Your task to perform on an android device: change notifications settings Image 0: 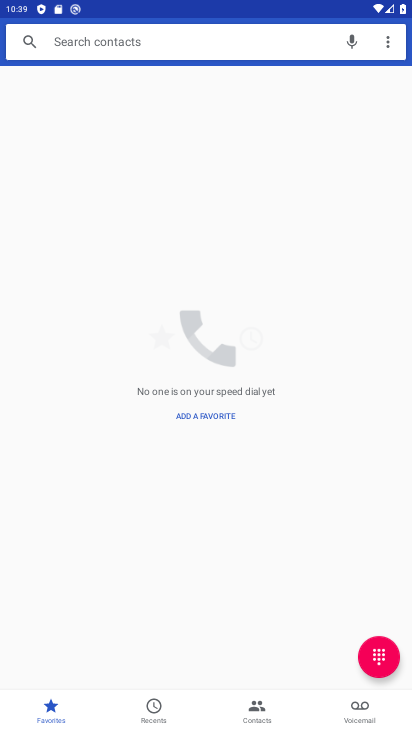
Step 0: press home button
Your task to perform on an android device: change notifications settings Image 1: 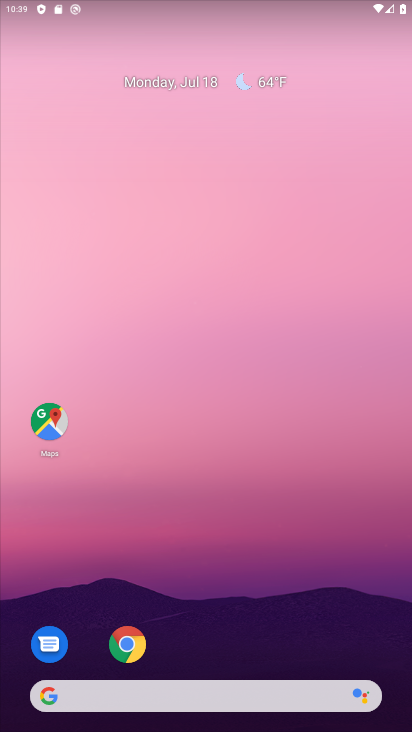
Step 1: drag from (243, 642) to (219, 105)
Your task to perform on an android device: change notifications settings Image 2: 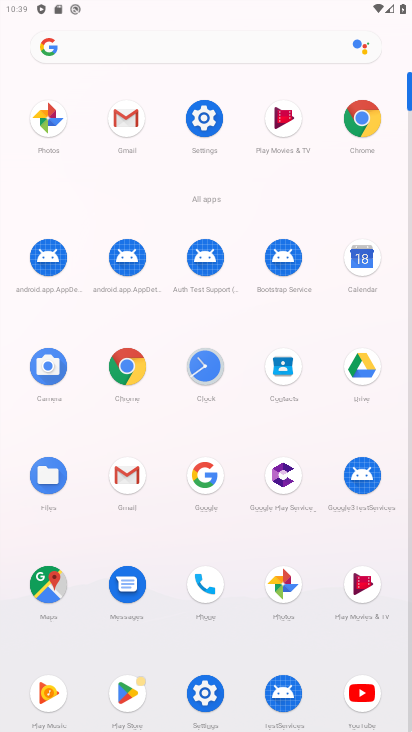
Step 2: click (202, 109)
Your task to perform on an android device: change notifications settings Image 3: 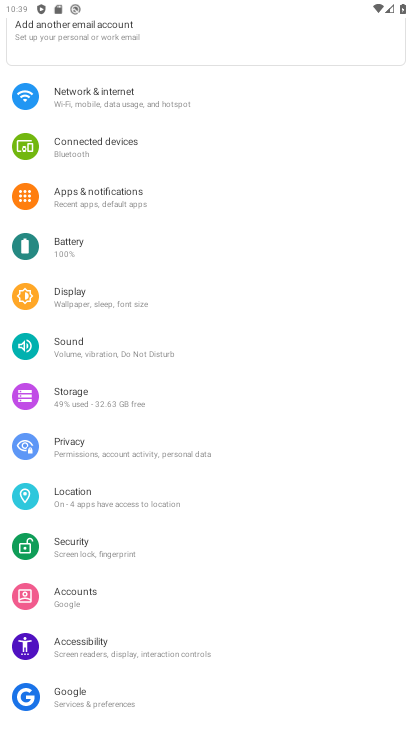
Step 3: click (106, 189)
Your task to perform on an android device: change notifications settings Image 4: 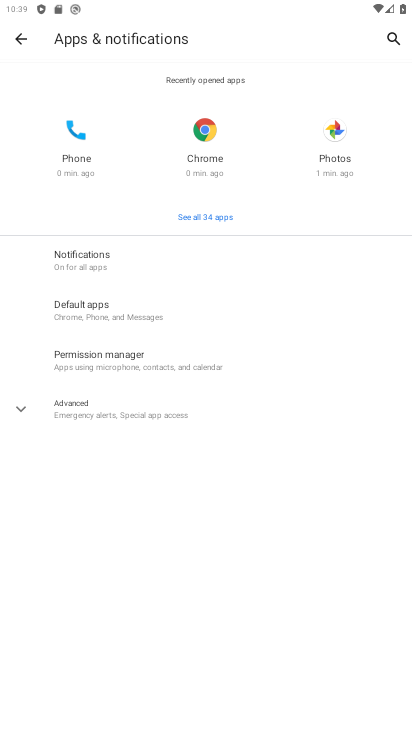
Step 4: click (82, 254)
Your task to perform on an android device: change notifications settings Image 5: 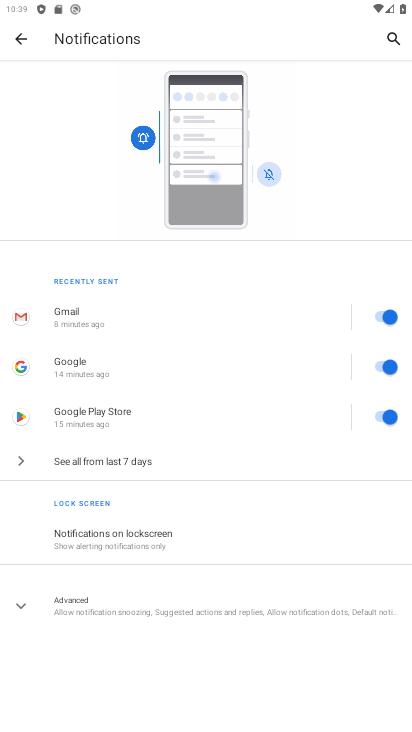
Step 5: click (173, 464)
Your task to perform on an android device: change notifications settings Image 6: 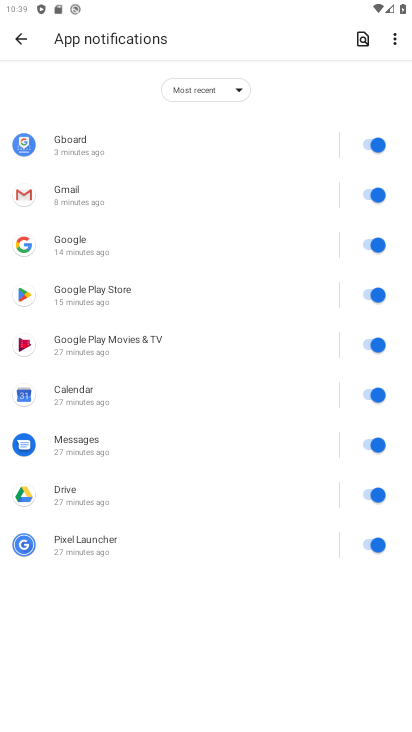
Step 6: click (361, 152)
Your task to perform on an android device: change notifications settings Image 7: 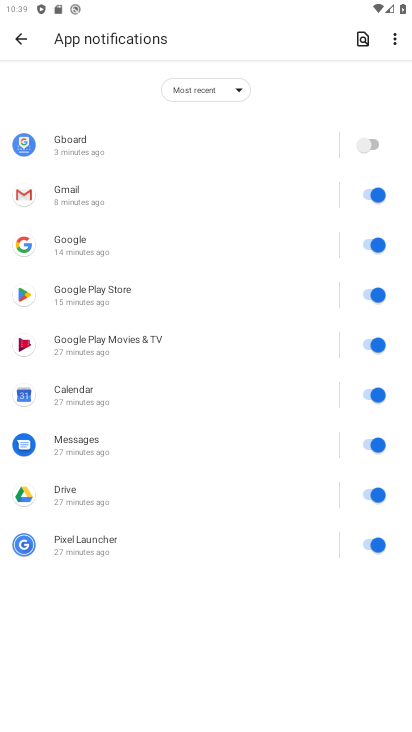
Step 7: click (368, 180)
Your task to perform on an android device: change notifications settings Image 8: 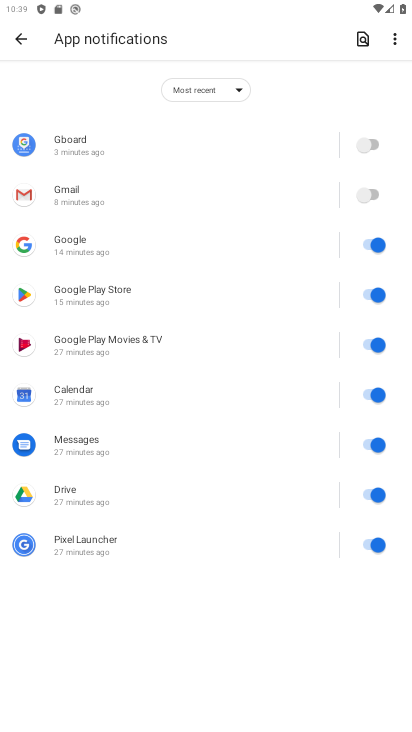
Step 8: click (374, 230)
Your task to perform on an android device: change notifications settings Image 9: 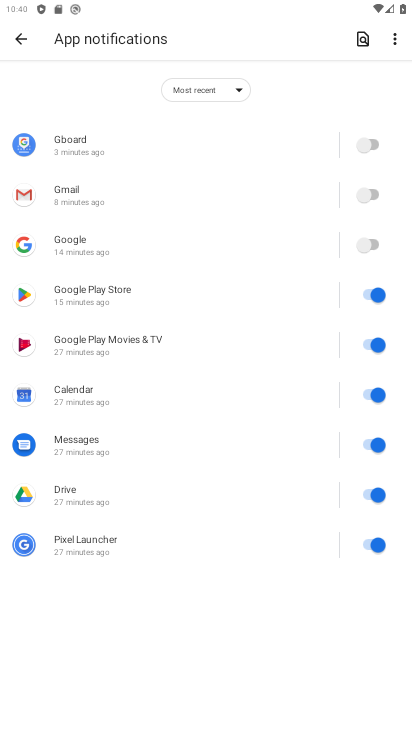
Step 9: click (365, 299)
Your task to perform on an android device: change notifications settings Image 10: 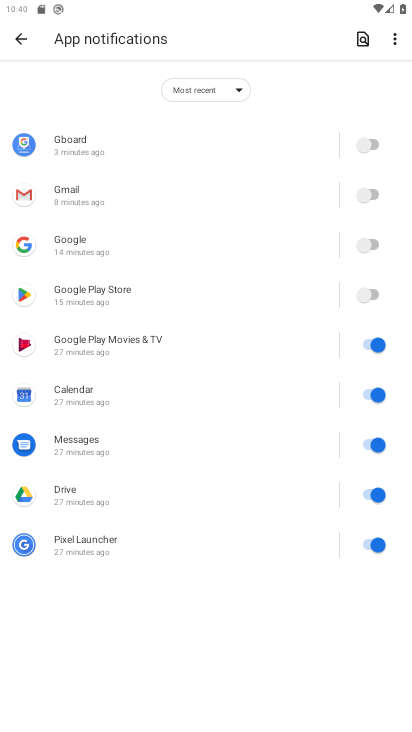
Step 10: click (362, 348)
Your task to perform on an android device: change notifications settings Image 11: 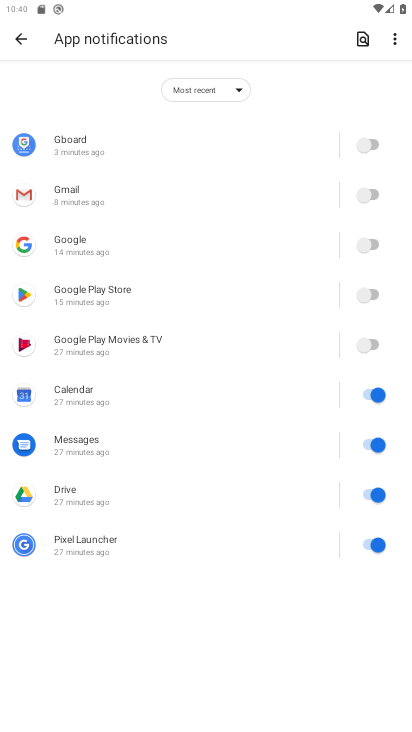
Step 11: click (361, 398)
Your task to perform on an android device: change notifications settings Image 12: 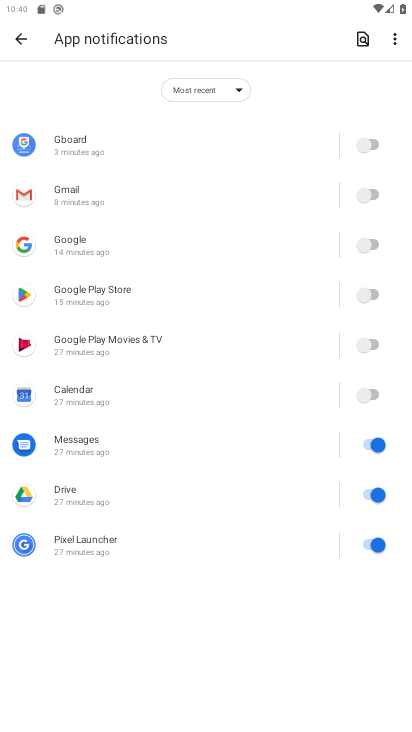
Step 12: click (369, 445)
Your task to perform on an android device: change notifications settings Image 13: 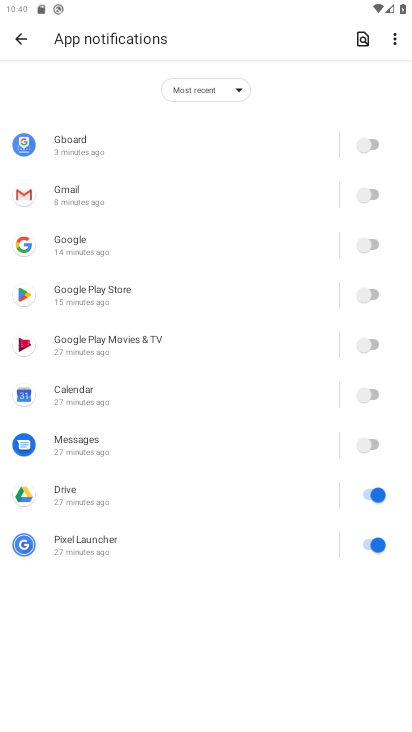
Step 13: click (366, 495)
Your task to perform on an android device: change notifications settings Image 14: 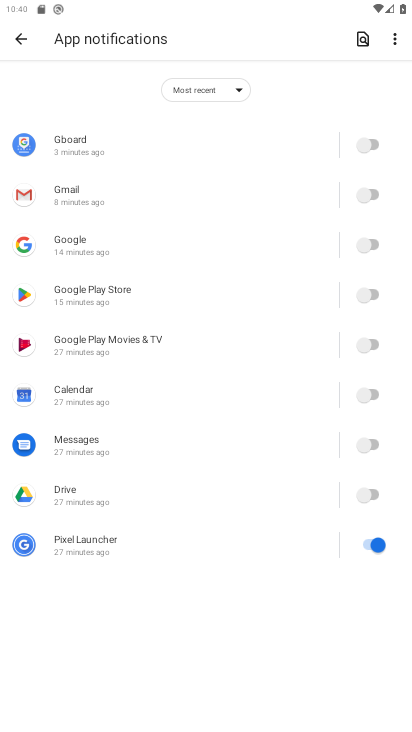
Step 14: click (366, 550)
Your task to perform on an android device: change notifications settings Image 15: 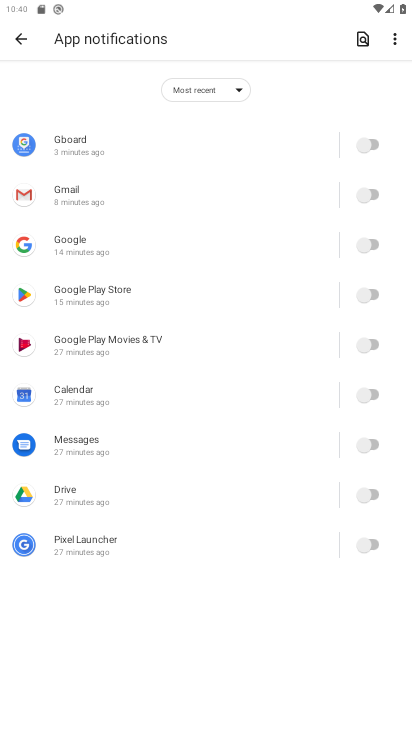
Step 15: click (23, 49)
Your task to perform on an android device: change notifications settings Image 16: 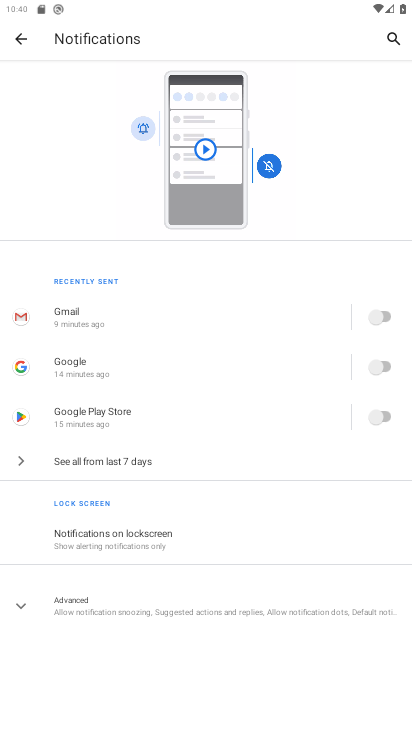
Step 16: click (76, 540)
Your task to perform on an android device: change notifications settings Image 17: 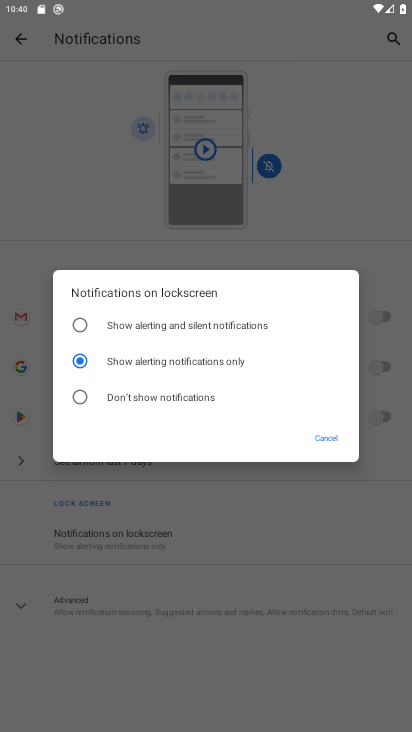
Step 17: click (113, 322)
Your task to perform on an android device: change notifications settings Image 18: 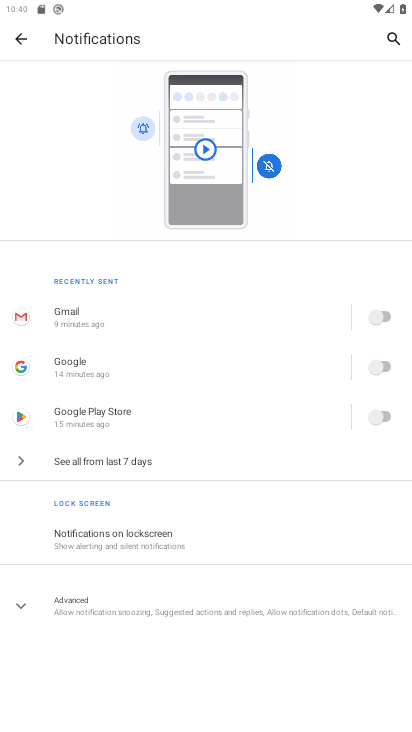
Step 18: click (101, 603)
Your task to perform on an android device: change notifications settings Image 19: 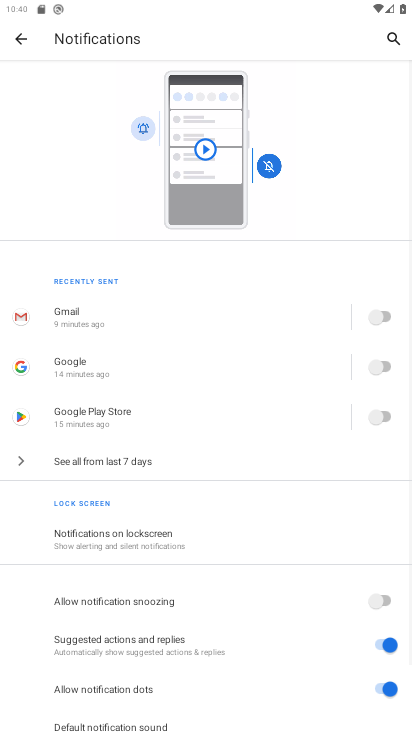
Step 19: click (374, 604)
Your task to perform on an android device: change notifications settings Image 20: 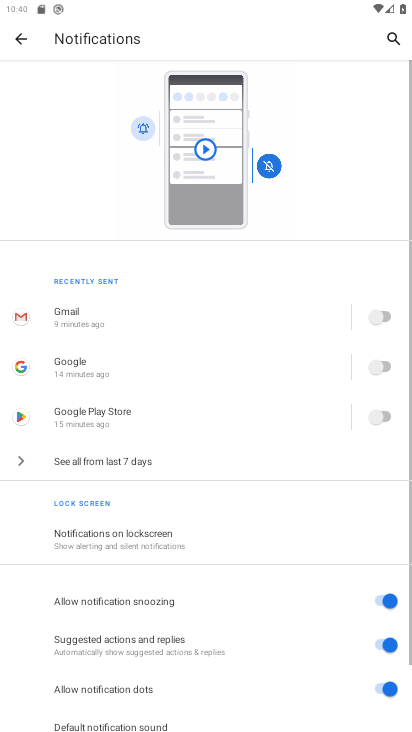
Step 20: click (379, 651)
Your task to perform on an android device: change notifications settings Image 21: 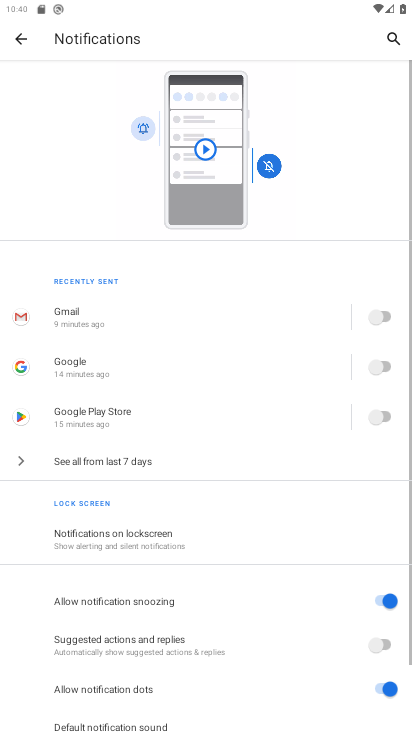
Step 21: click (388, 700)
Your task to perform on an android device: change notifications settings Image 22: 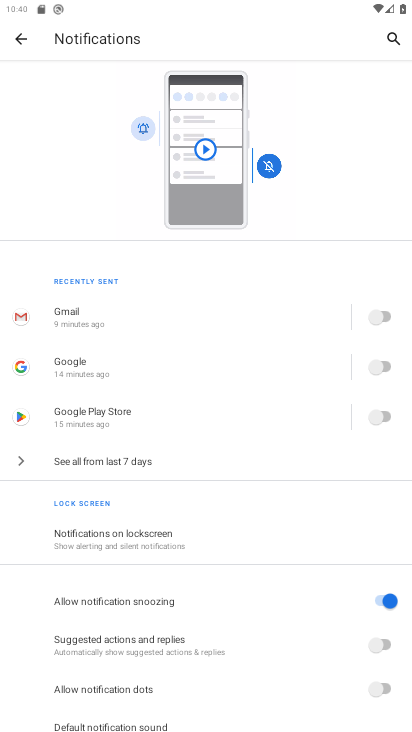
Step 22: task complete